Your task to perform on an android device: turn off priority inbox in the gmail app Image 0: 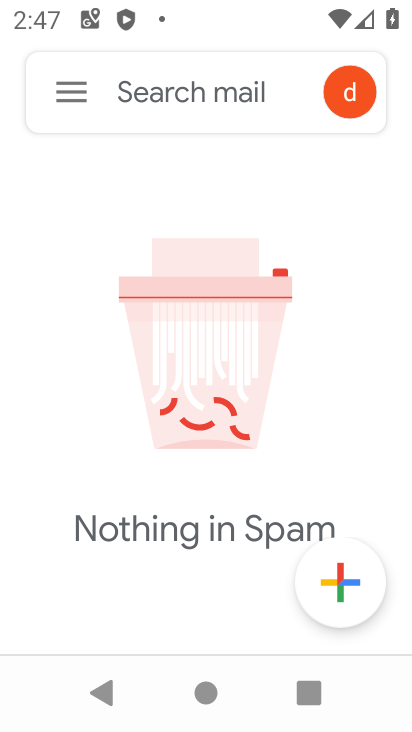
Step 0: click (67, 96)
Your task to perform on an android device: turn off priority inbox in the gmail app Image 1: 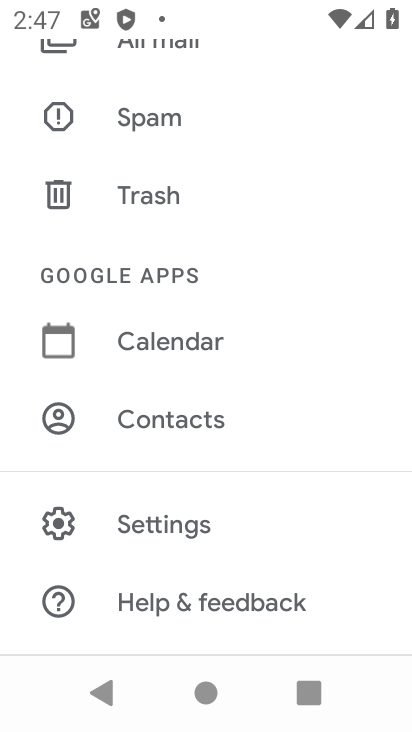
Step 1: click (167, 519)
Your task to perform on an android device: turn off priority inbox in the gmail app Image 2: 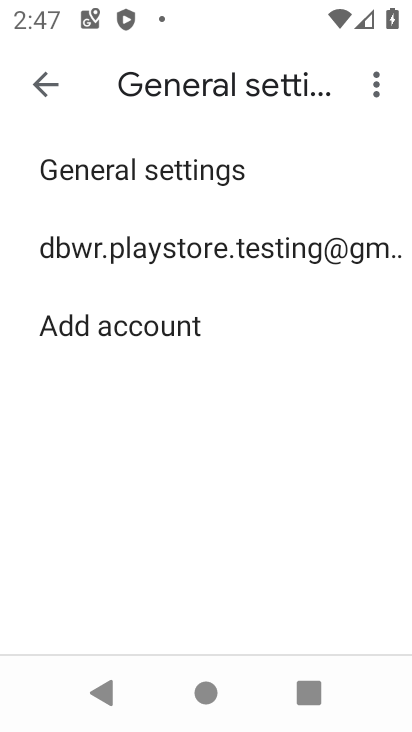
Step 2: click (198, 152)
Your task to perform on an android device: turn off priority inbox in the gmail app Image 3: 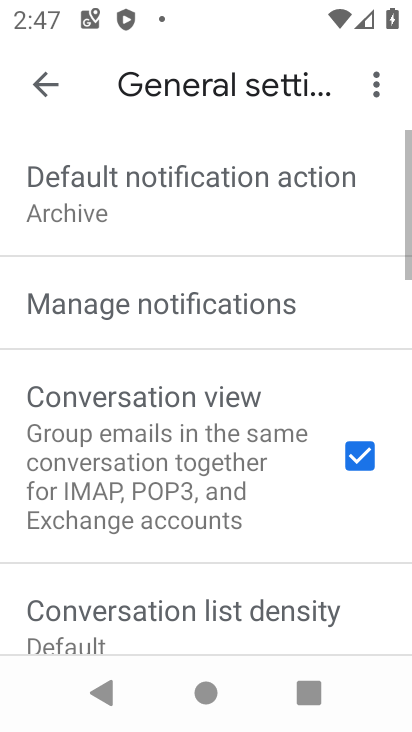
Step 3: task complete